Your task to perform on an android device: Open Amazon Image 0: 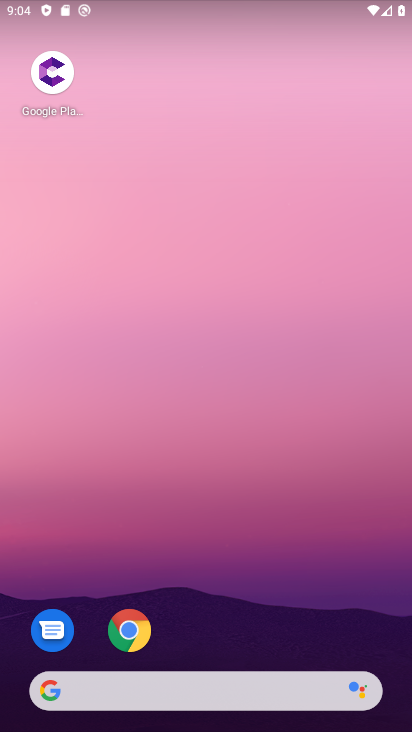
Step 0: drag from (173, 686) to (196, 363)
Your task to perform on an android device: Open Amazon Image 1: 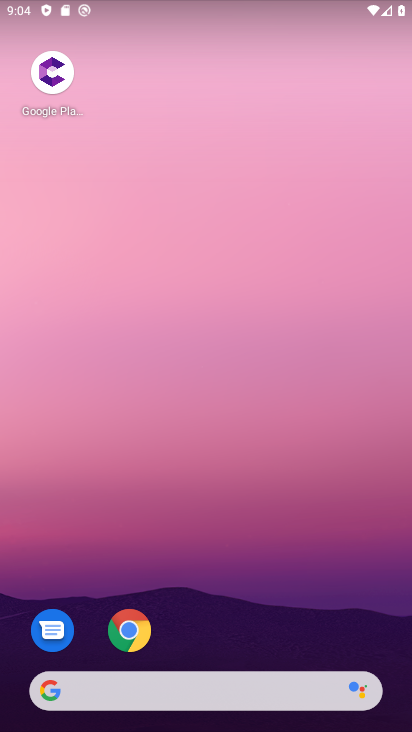
Step 1: drag from (174, 695) to (227, 248)
Your task to perform on an android device: Open Amazon Image 2: 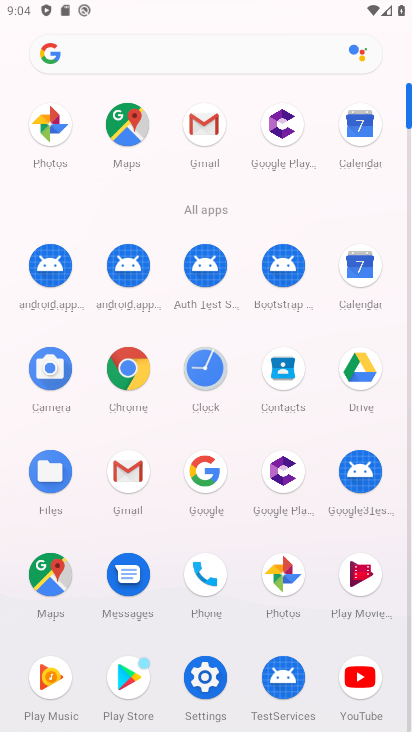
Step 2: click (131, 375)
Your task to perform on an android device: Open Amazon Image 3: 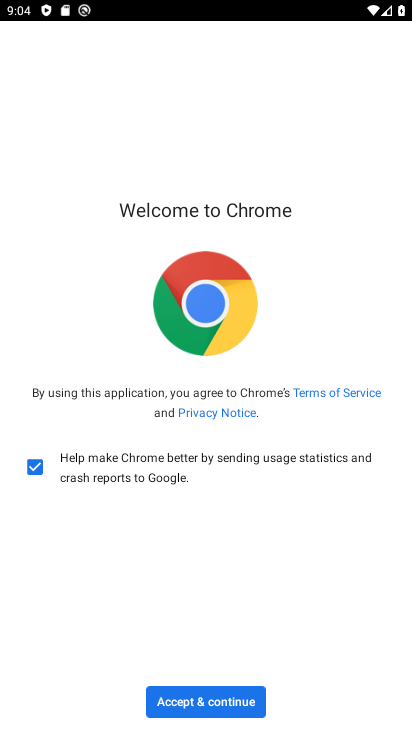
Step 3: click (204, 700)
Your task to perform on an android device: Open Amazon Image 4: 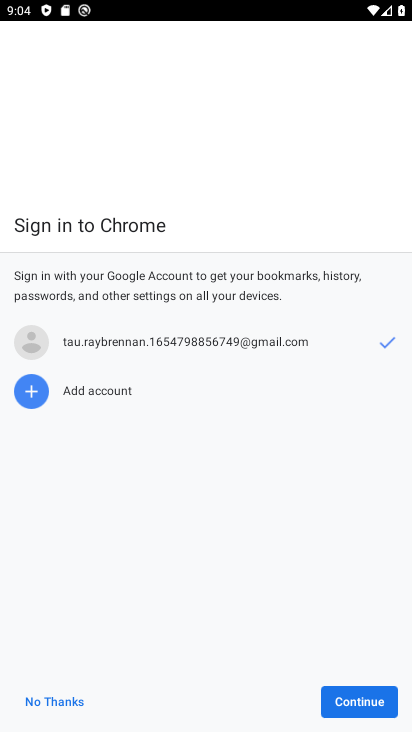
Step 4: click (338, 709)
Your task to perform on an android device: Open Amazon Image 5: 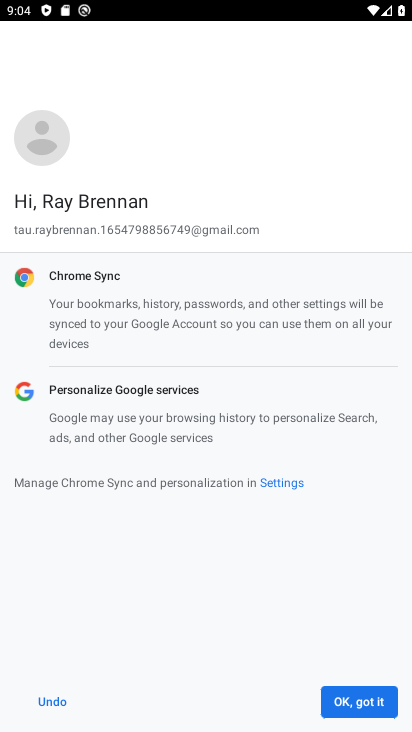
Step 5: click (336, 704)
Your task to perform on an android device: Open Amazon Image 6: 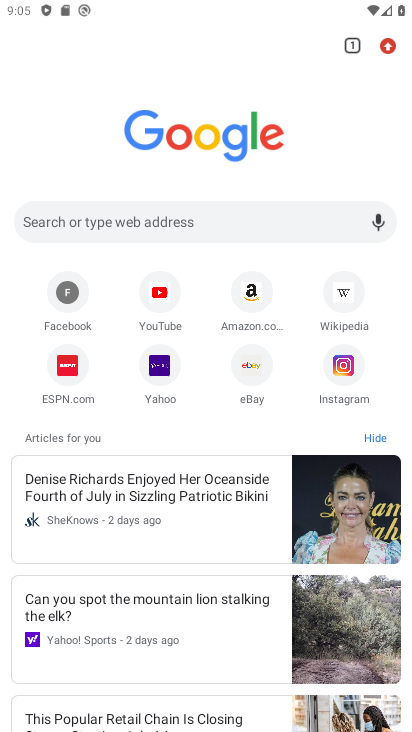
Step 6: click (246, 300)
Your task to perform on an android device: Open Amazon Image 7: 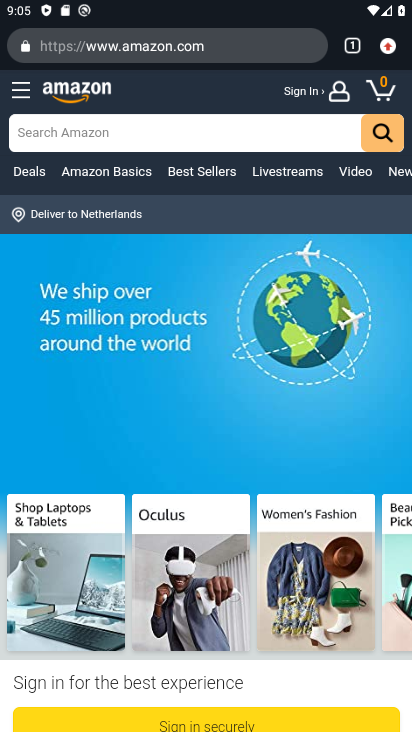
Step 7: task complete